Your task to perform on an android device: turn off wifi Image 0: 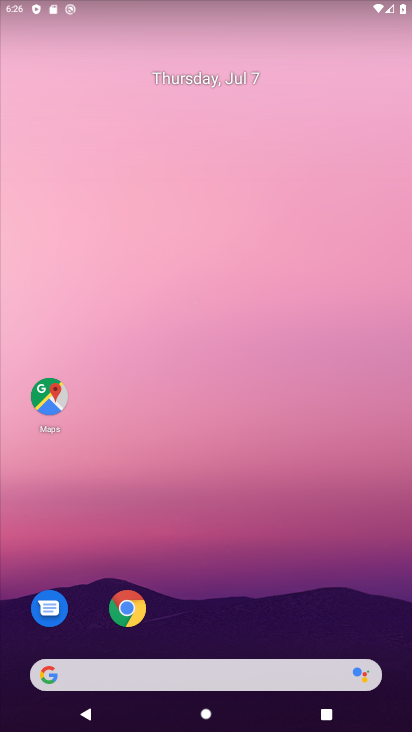
Step 0: drag from (285, 637) to (238, 123)
Your task to perform on an android device: turn off wifi Image 1: 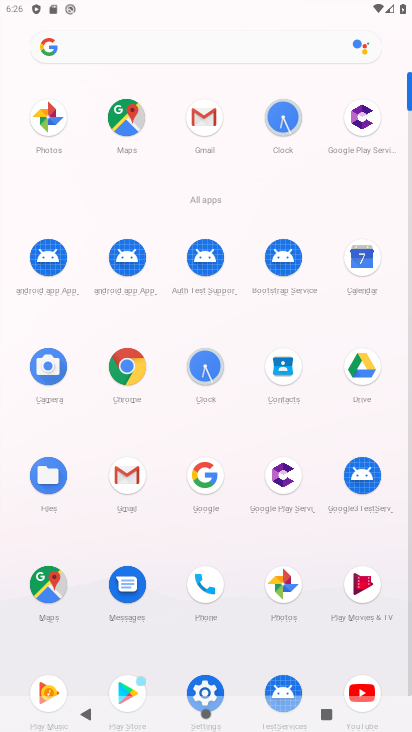
Step 1: drag from (144, 2) to (184, 438)
Your task to perform on an android device: turn off wifi Image 2: 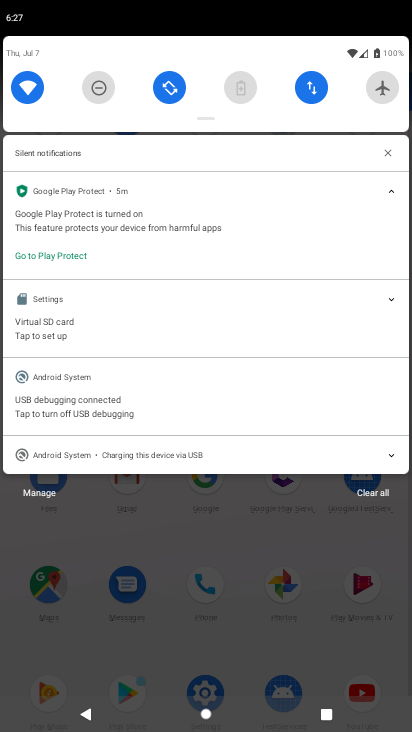
Step 2: click (12, 79)
Your task to perform on an android device: turn off wifi Image 3: 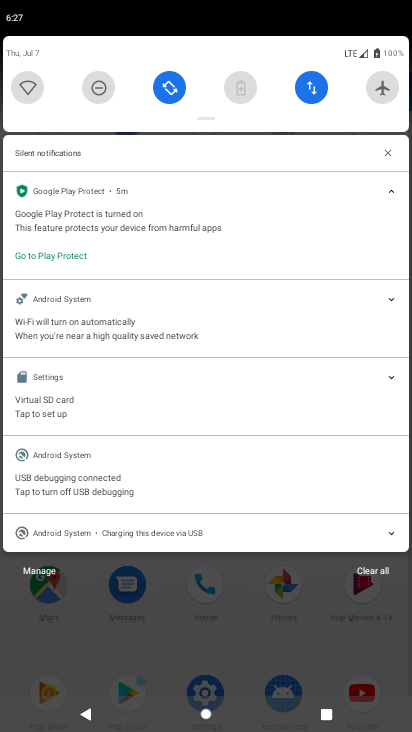
Step 3: task complete